Your task to perform on an android device: open app "Google Duo" Image 0: 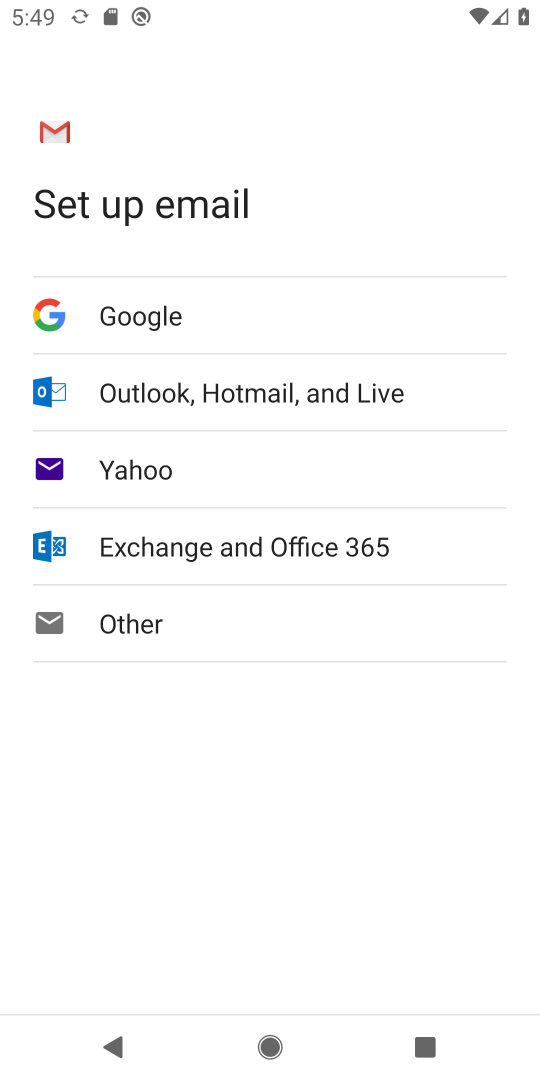
Step 0: press home button
Your task to perform on an android device: open app "Google Duo" Image 1: 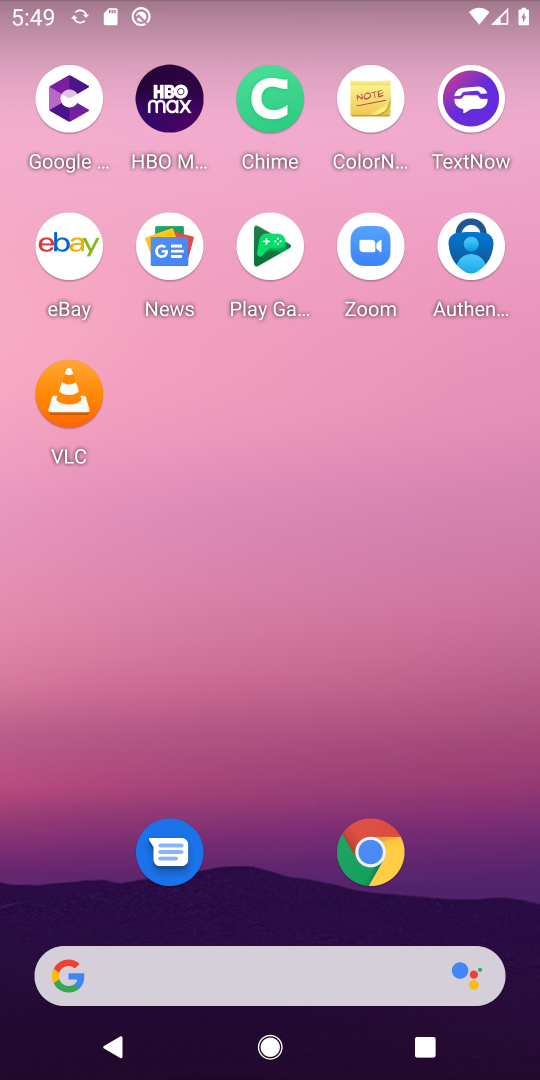
Step 1: drag from (314, 993) to (369, 66)
Your task to perform on an android device: open app "Google Duo" Image 2: 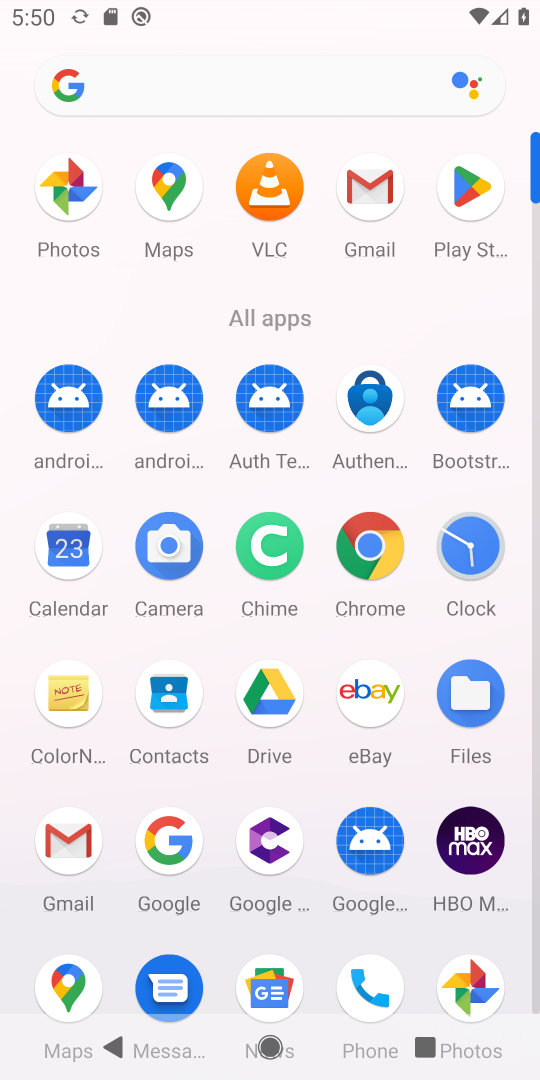
Step 2: click (467, 186)
Your task to perform on an android device: open app "Google Duo" Image 3: 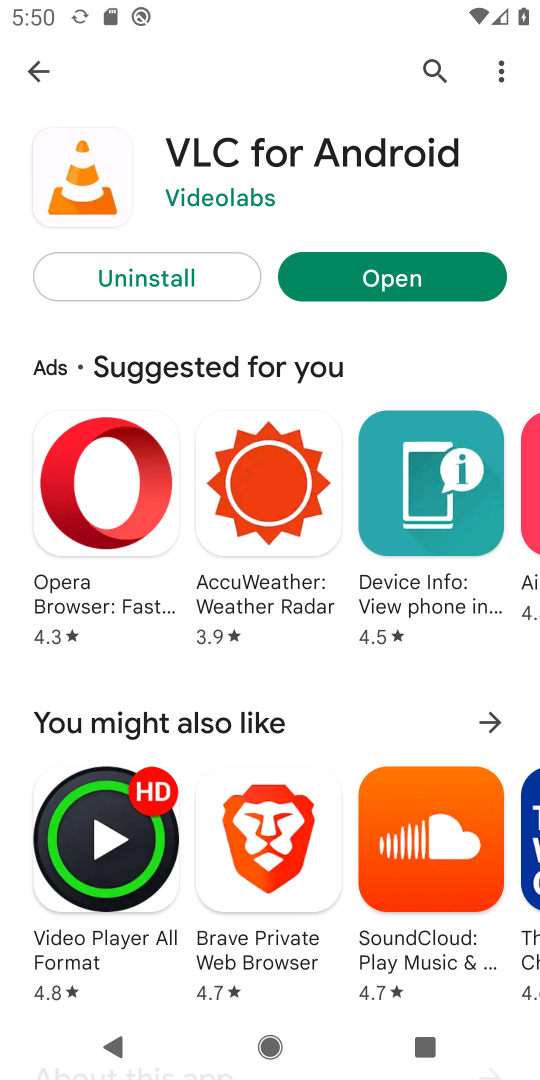
Step 3: press back button
Your task to perform on an android device: open app "Google Duo" Image 4: 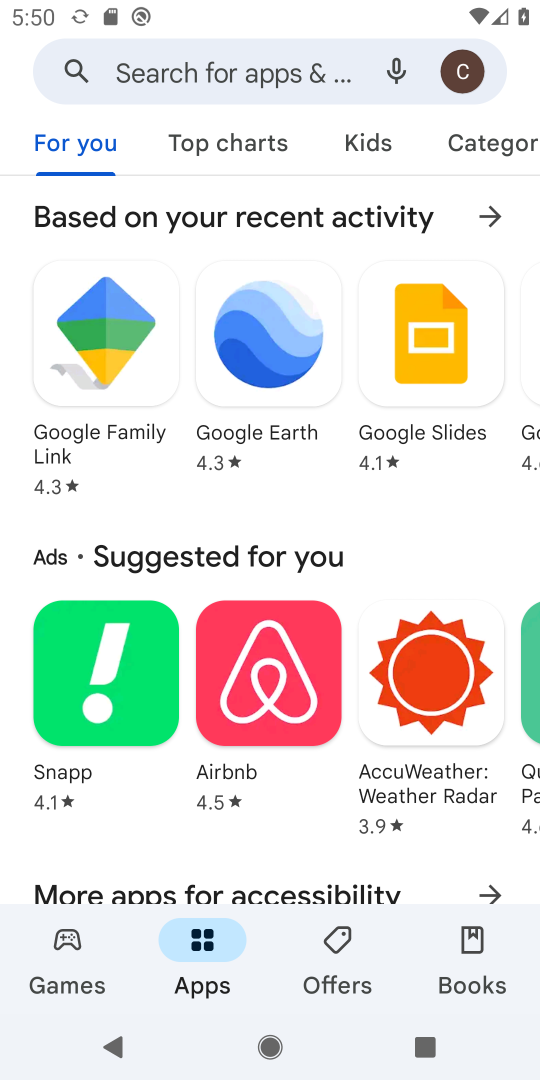
Step 4: click (285, 89)
Your task to perform on an android device: open app "Google Duo" Image 5: 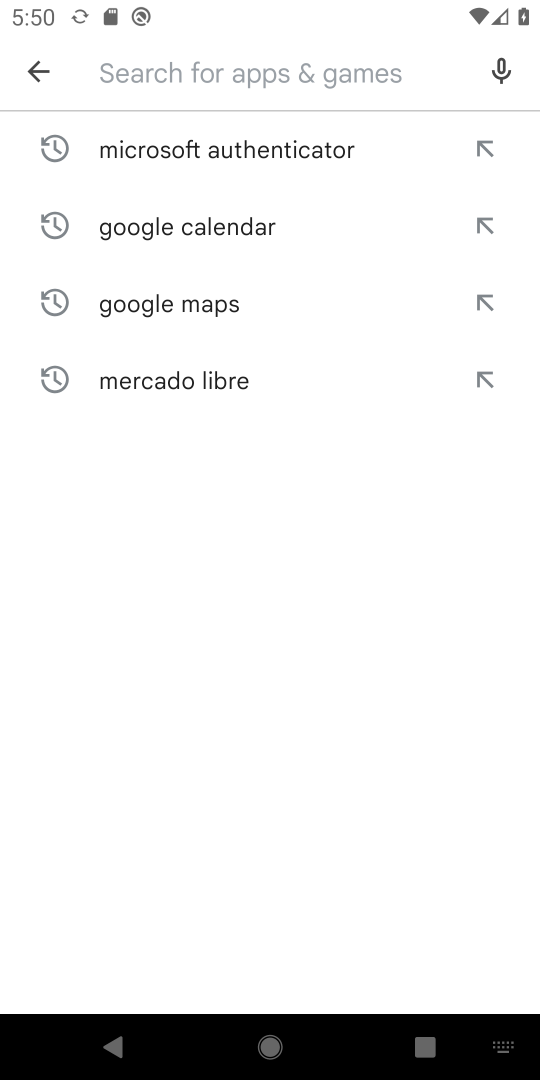
Step 5: type "Google Duo"
Your task to perform on an android device: open app "Google Duo" Image 6: 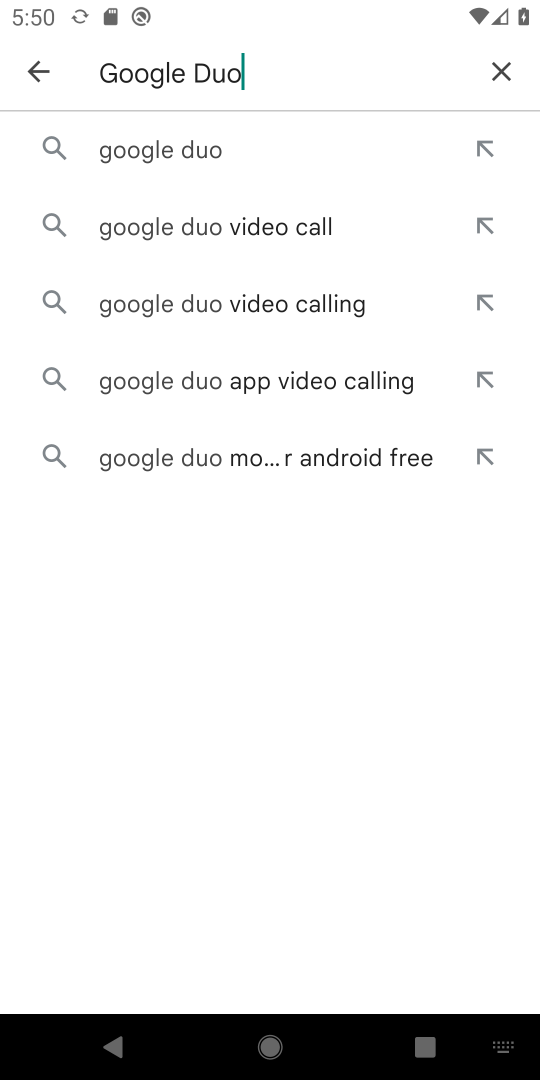
Step 6: click (187, 153)
Your task to perform on an android device: open app "Google Duo" Image 7: 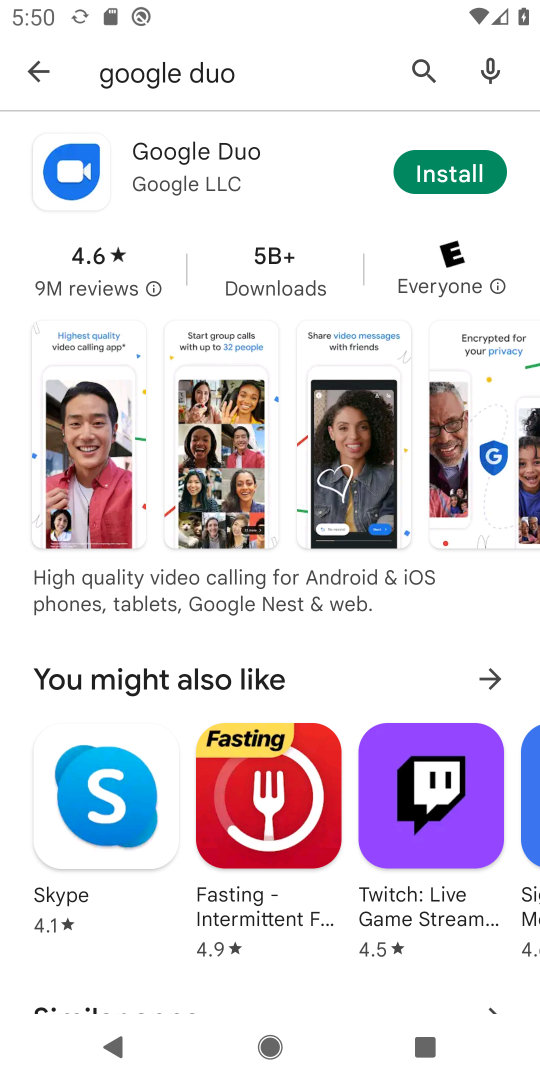
Step 7: task complete